Your task to perform on an android device: set default search engine in the chrome app Image 0: 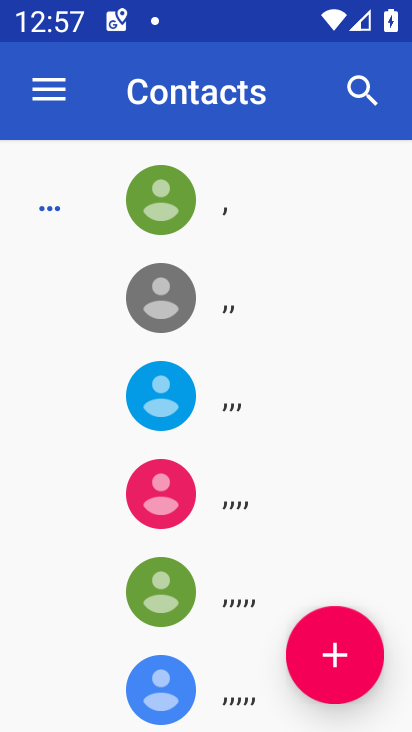
Step 0: press back button
Your task to perform on an android device: set default search engine in the chrome app Image 1: 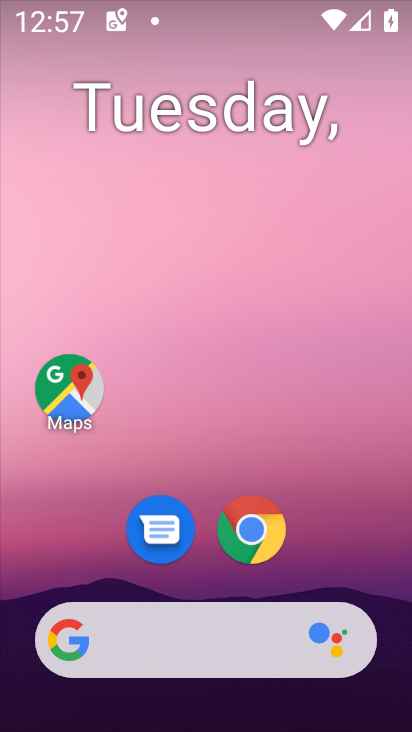
Step 1: click (250, 521)
Your task to perform on an android device: set default search engine in the chrome app Image 2: 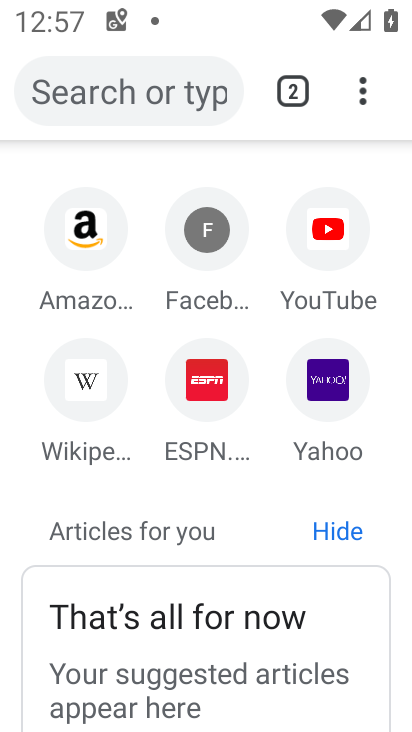
Step 2: drag from (364, 79) to (114, 558)
Your task to perform on an android device: set default search engine in the chrome app Image 3: 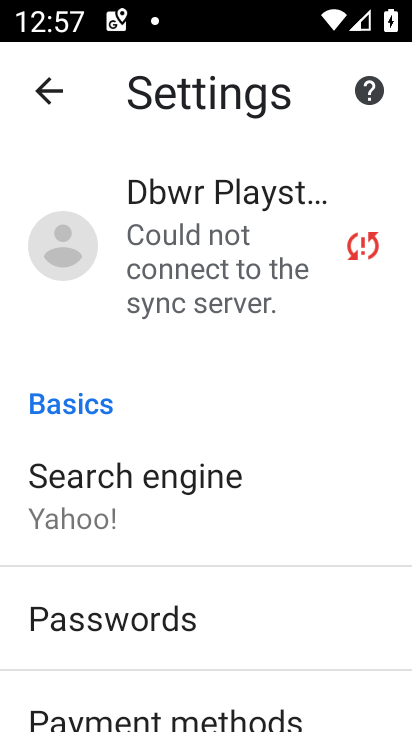
Step 3: click (129, 506)
Your task to perform on an android device: set default search engine in the chrome app Image 4: 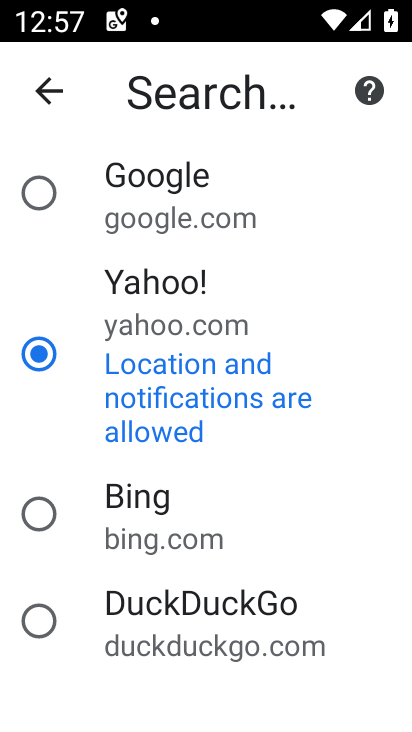
Step 4: click (197, 214)
Your task to perform on an android device: set default search engine in the chrome app Image 5: 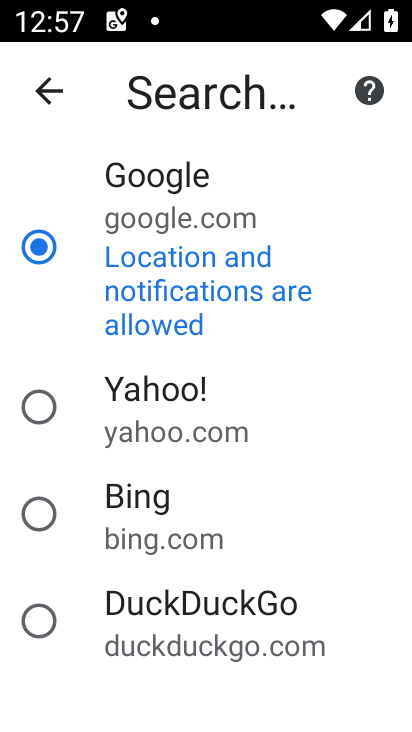
Step 5: task complete